Your task to perform on an android device: turn on javascript in the chrome app Image 0: 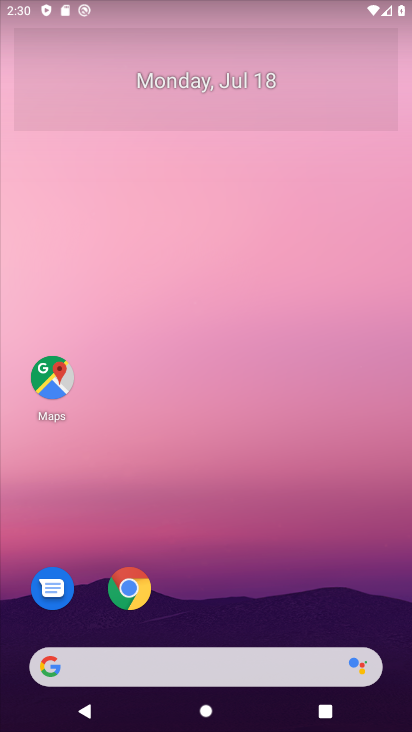
Step 0: click (135, 597)
Your task to perform on an android device: turn on javascript in the chrome app Image 1: 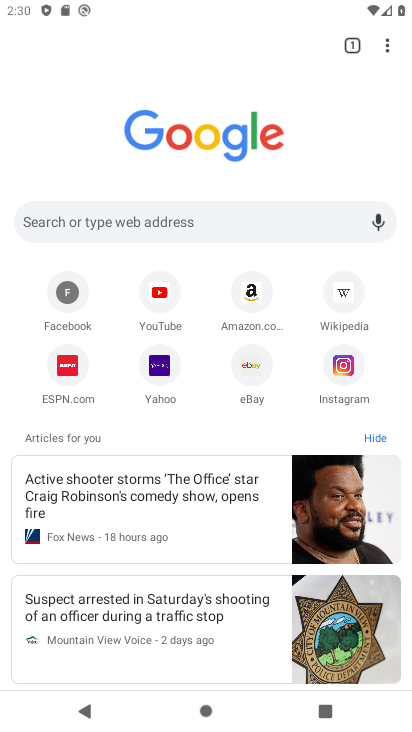
Step 1: drag from (384, 42) to (220, 375)
Your task to perform on an android device: turn on javascript in the chrome app Image 2: 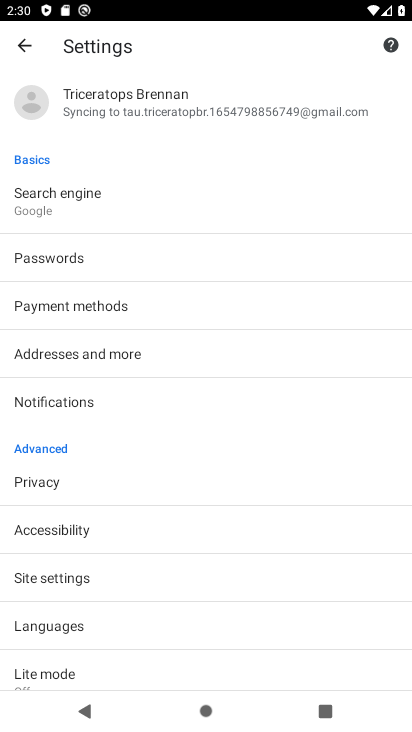
Step 2: click (57, 581)
Your task to perform on an android device: turn on javascript in the chrome app Image 3: 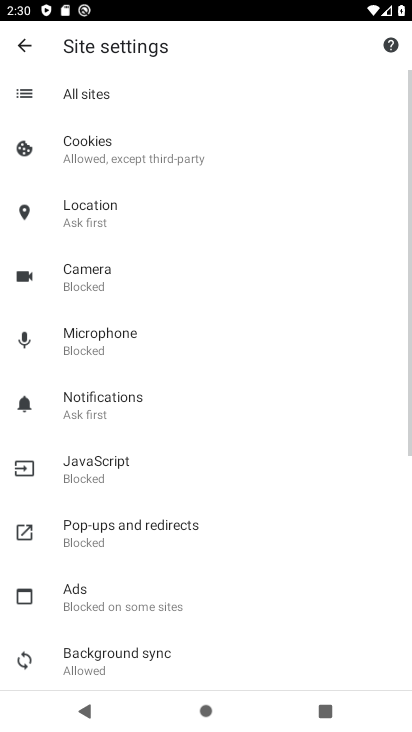
Step 3: click (135, 480)
Your task to perform on an android device: turn on javascript in the chrome app Image 4: 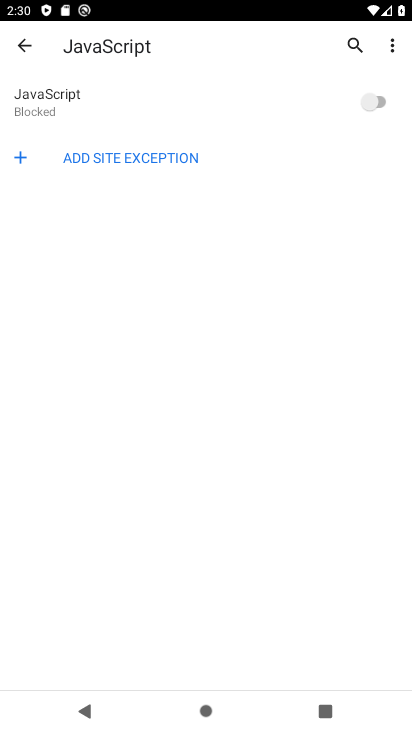
Step 4: click (368, 104)
Your task to perform on an android device: turn on javascript in the chrome app Image 5: 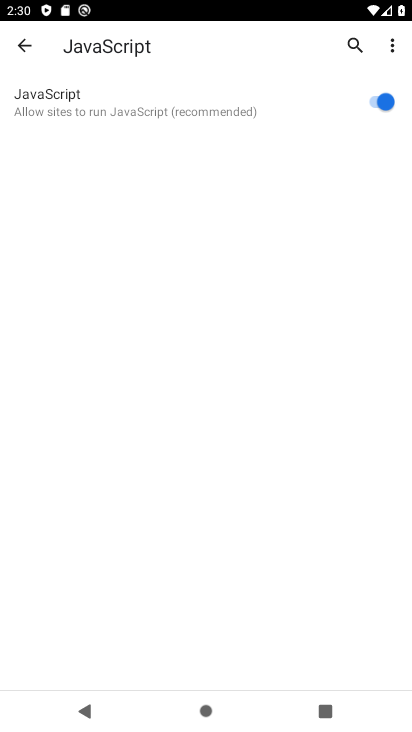
Step 5: task complete